Your task to perform on an android device: Open Youtube and go to "Your channel" Image 0: 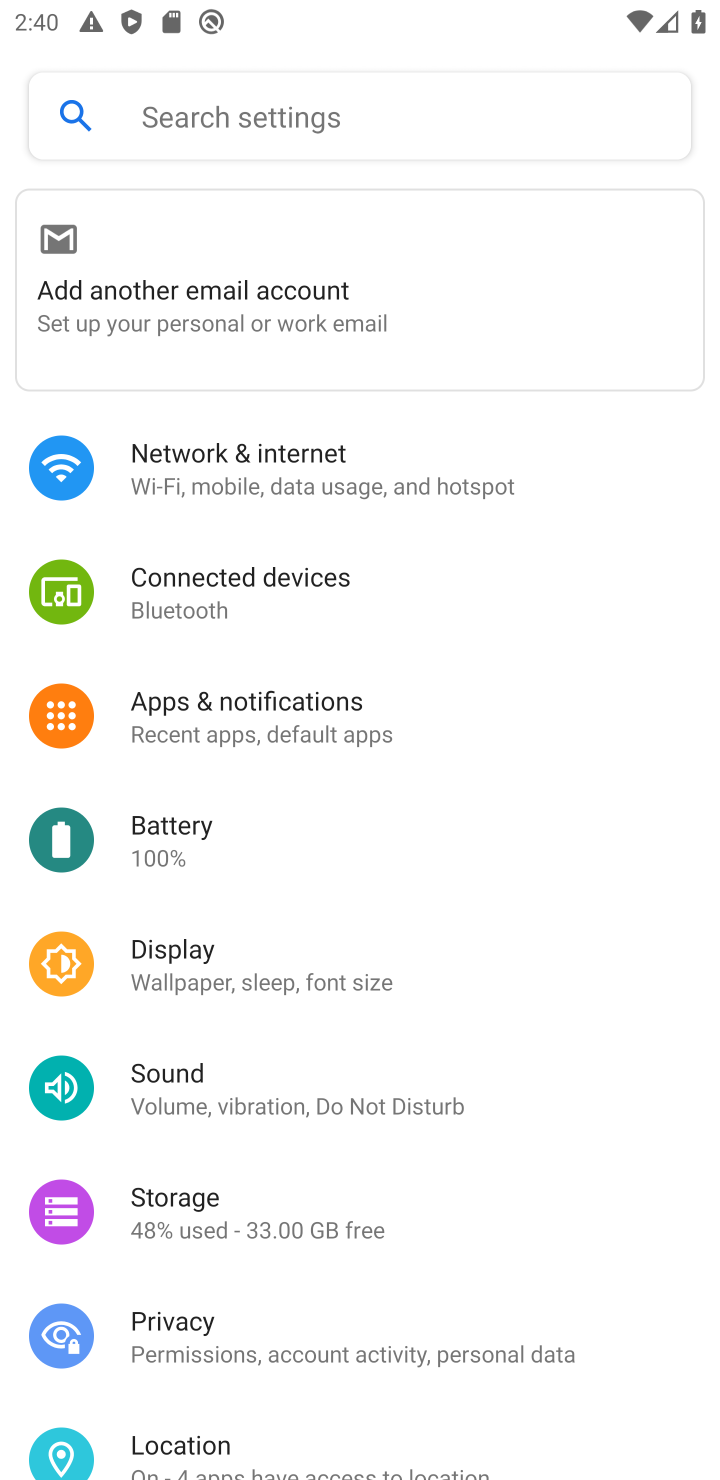
Step 0: press home button
Your task to perform on an android device: Open Youtube and go to "Your channel" Image 1: 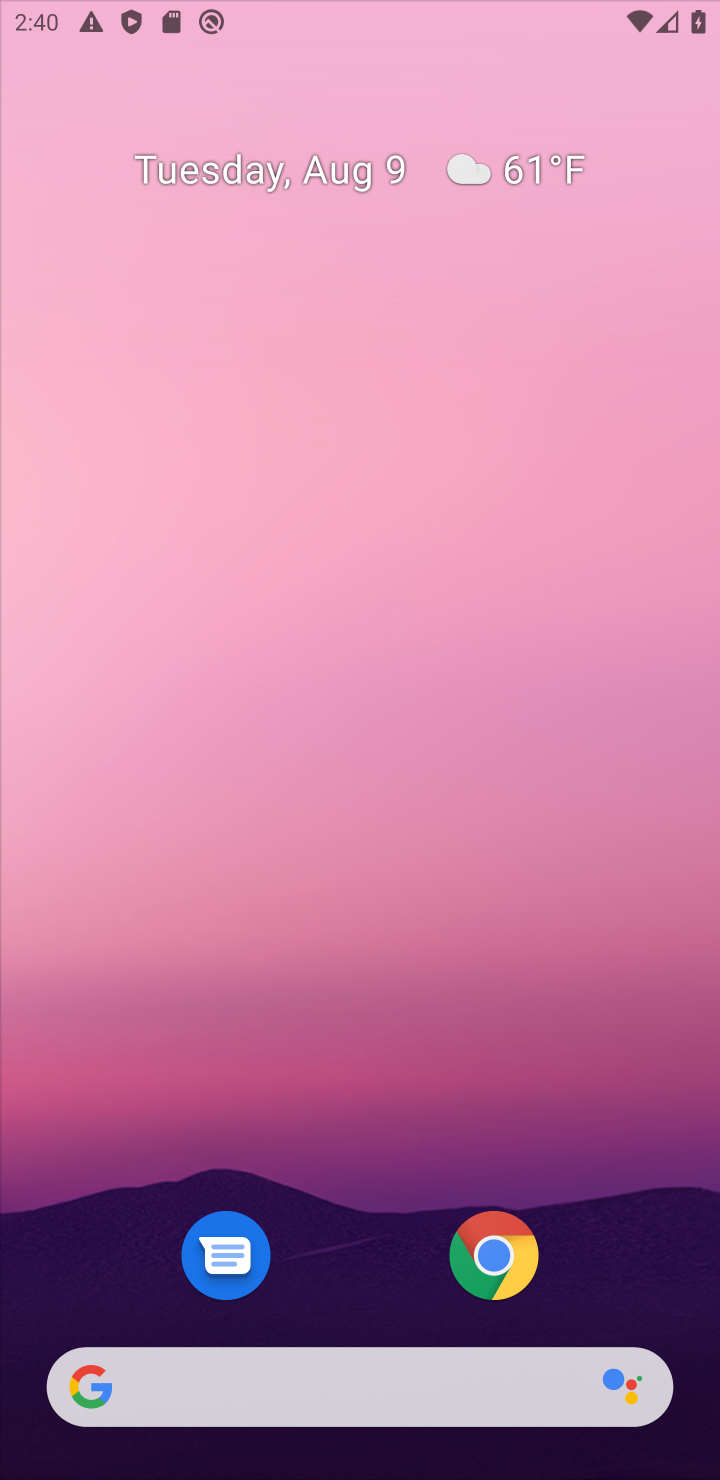
Step 1: drag from (205, 1279) to (230, 680)
Your task to perform on an android device: Open Youtube and go to "Your channel" Image 2: 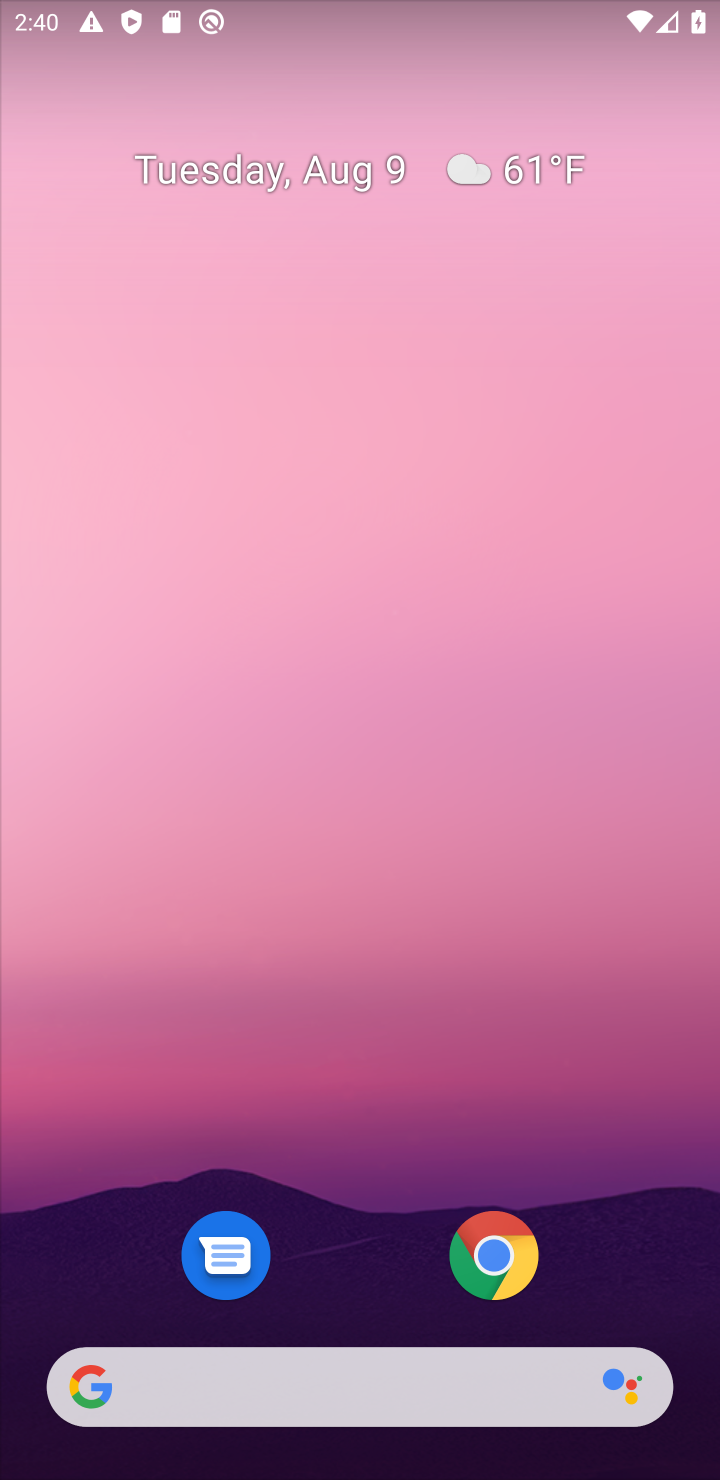
Step 2: drag from (423, 798) to (386, 493)
Your task to perform on an android device: Open Youtube and go to "Your channel" Image 3: 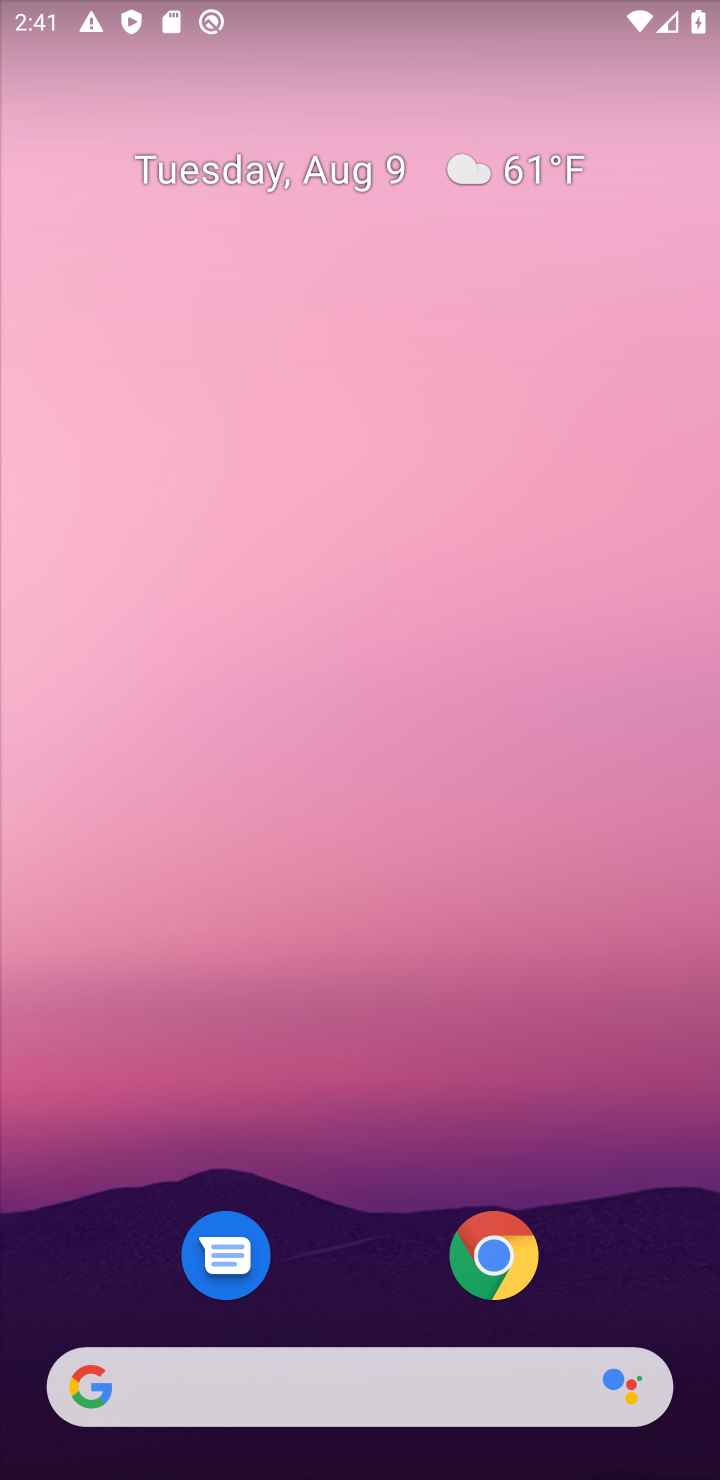
Step 3: click (285, 569)
Your task to perform on an android device: Open Youtube and go to "Your channel" Image 4: 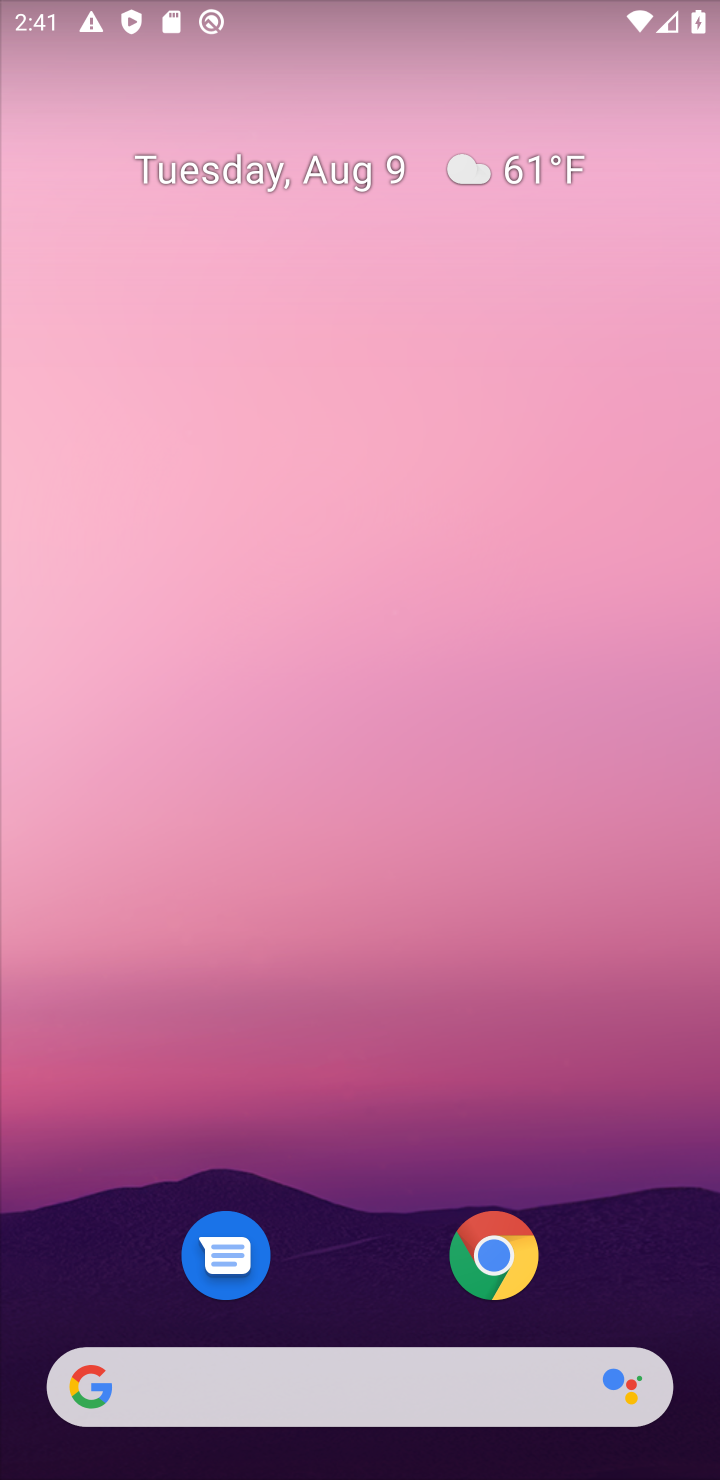
Step 4: drag from (296, 1408) to (284, 402)
Your task to perform on an android device: Open Youtube and go to "Your channel" Image 5: 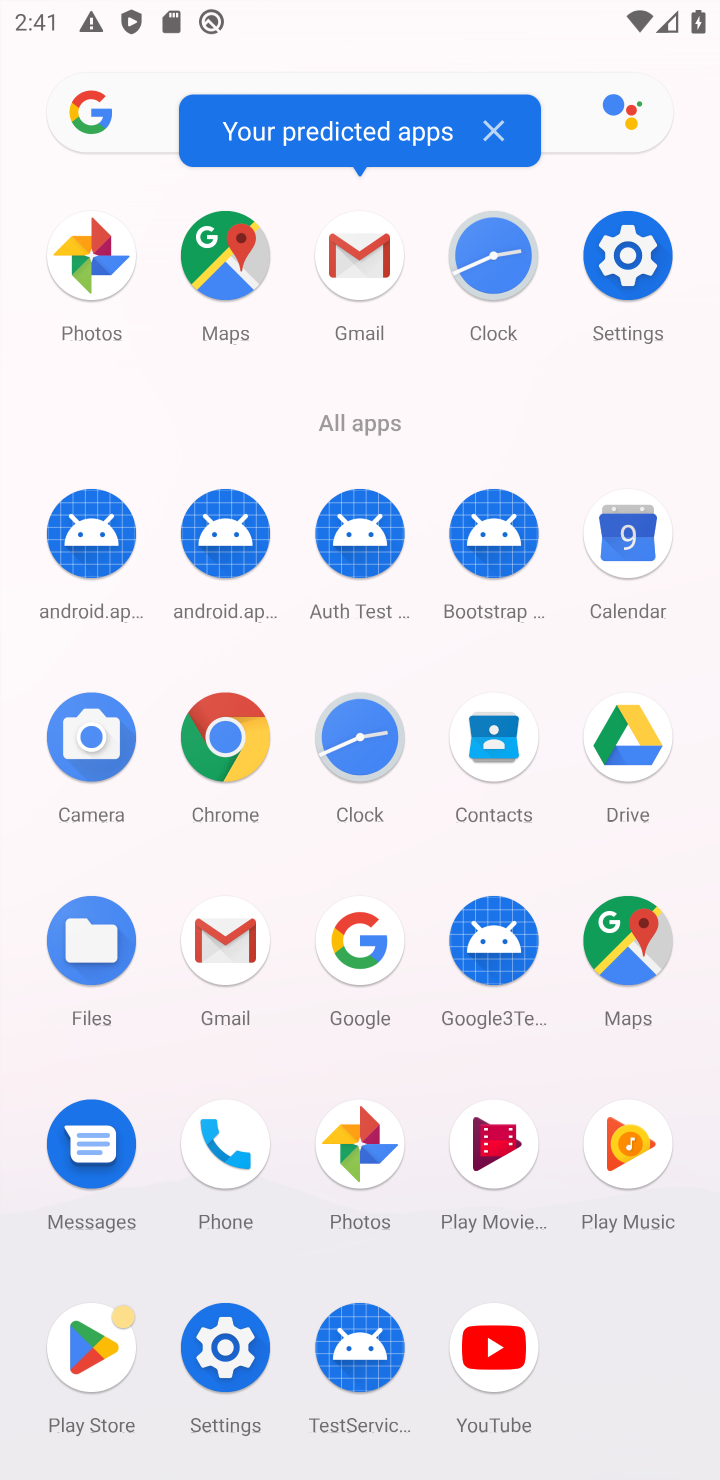
Step 5: click (471, 1346)
Your task to perform on an android device: Open Youtube and go to "Your channel" Image 6: 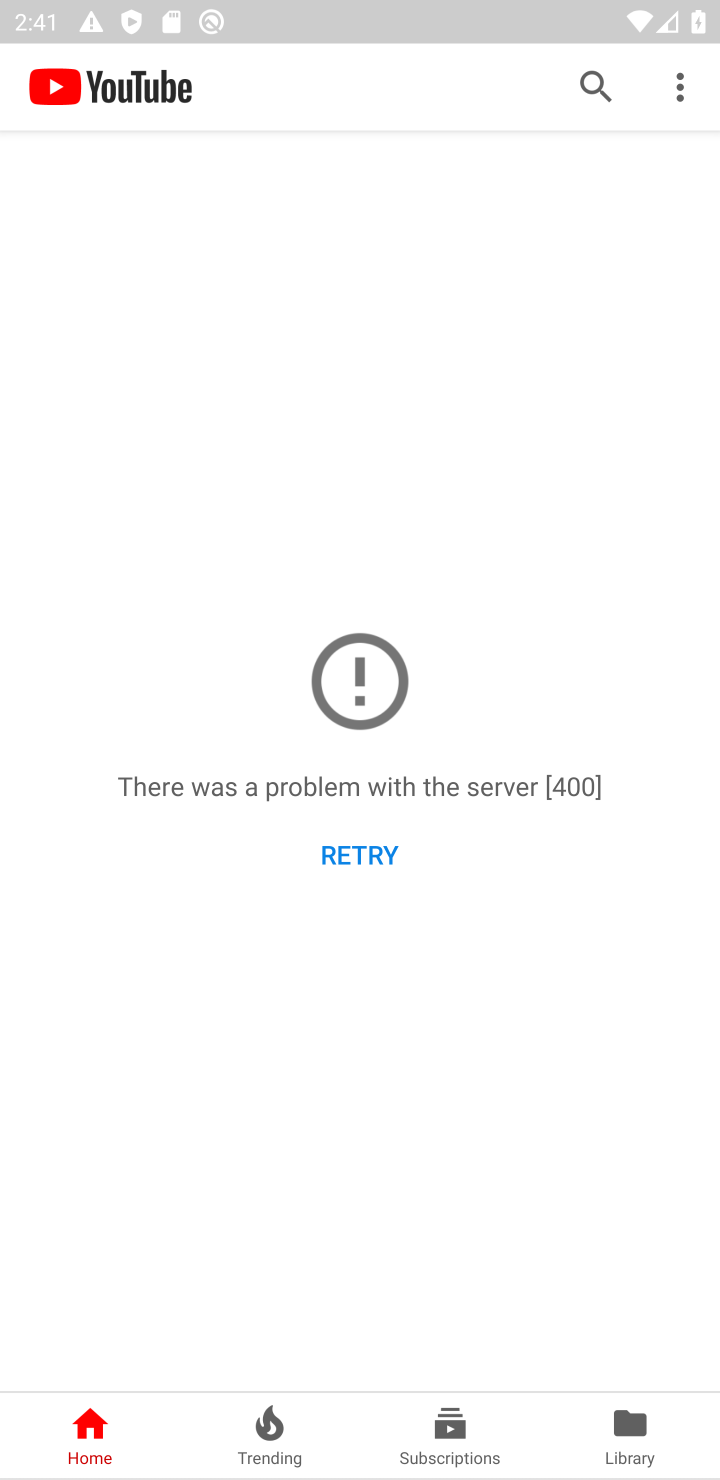
Step 6: click (570, 74)
Your task to perform on an android device: Open Youtube and go to "Your channel" Image 7: 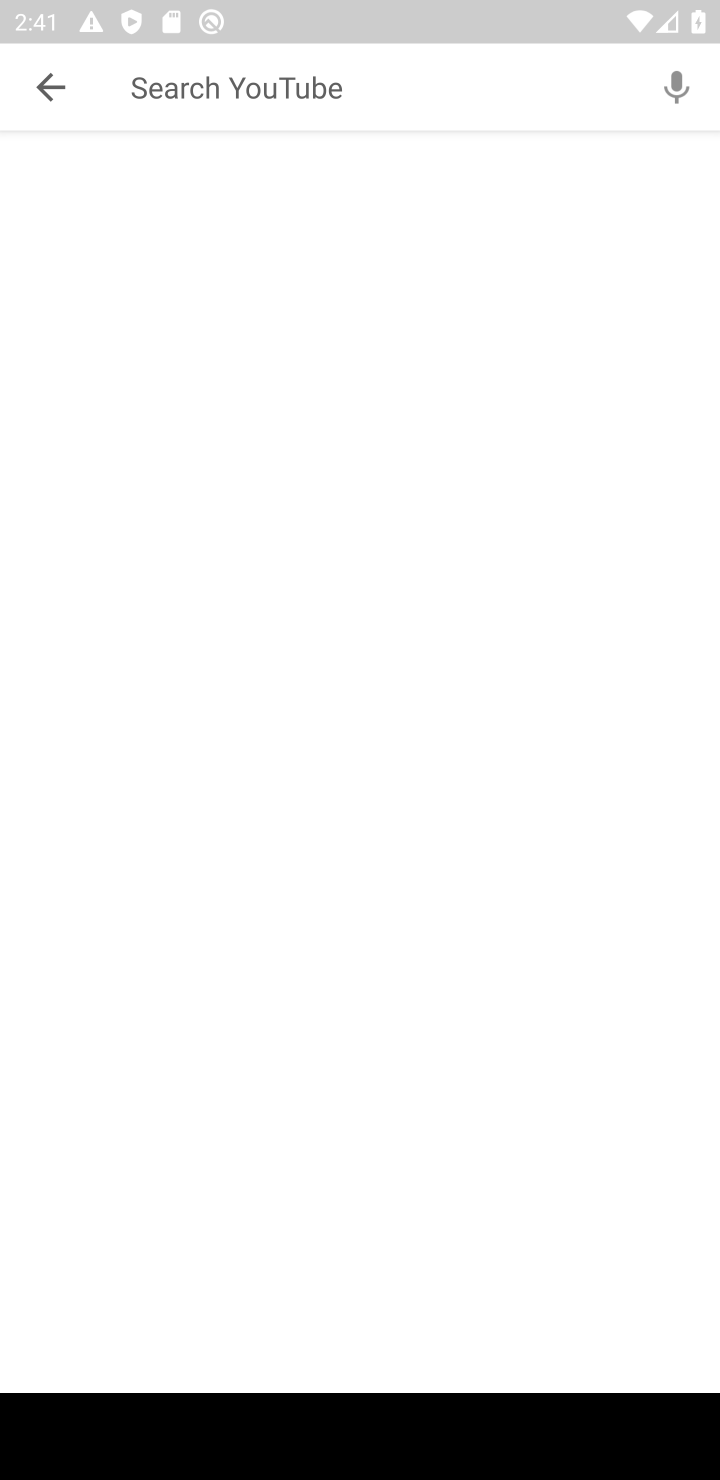
Step 7: type "india "
Your task to perform on an android device: Open Youtube and go to "Your channel" Image 8: 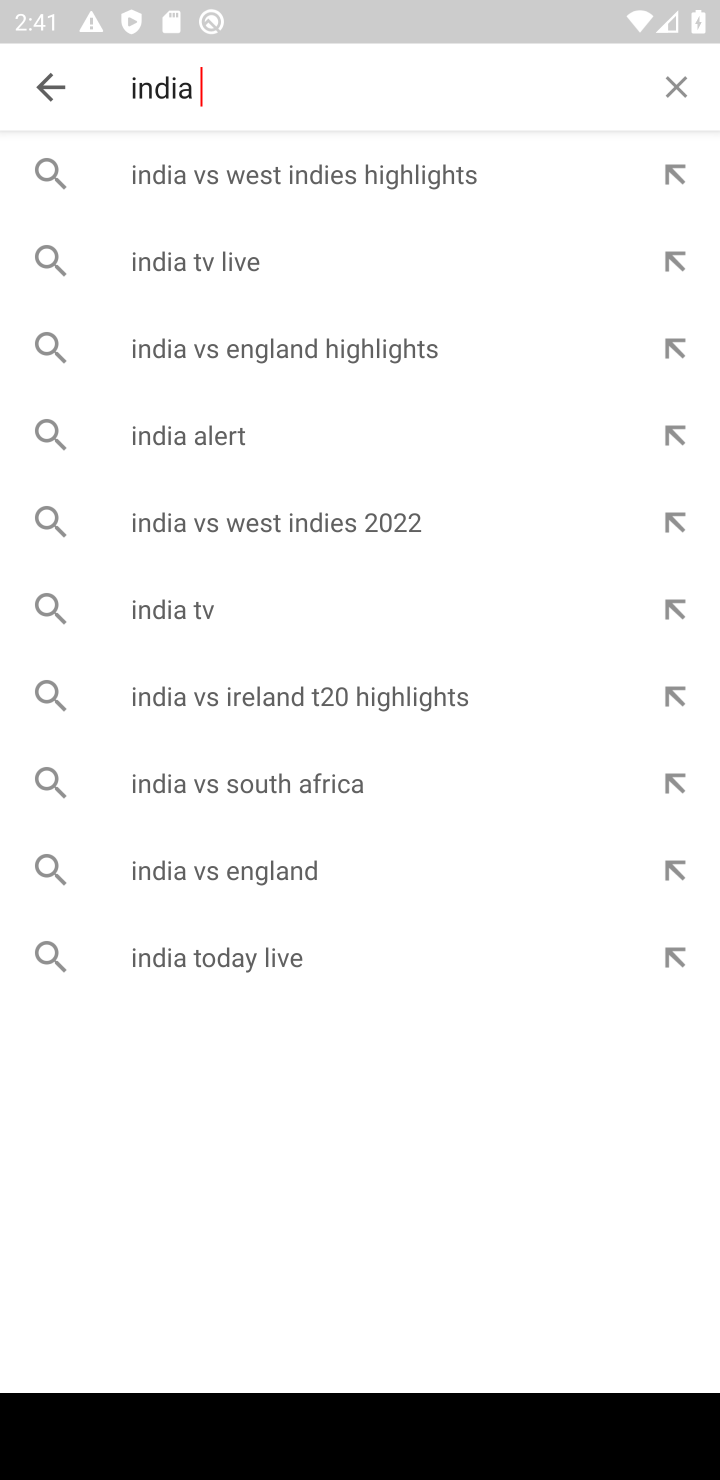
Step 8: click (321, 198)
Your task to perform on an android device: Open Youtube and go to "Your channel" Image 9: 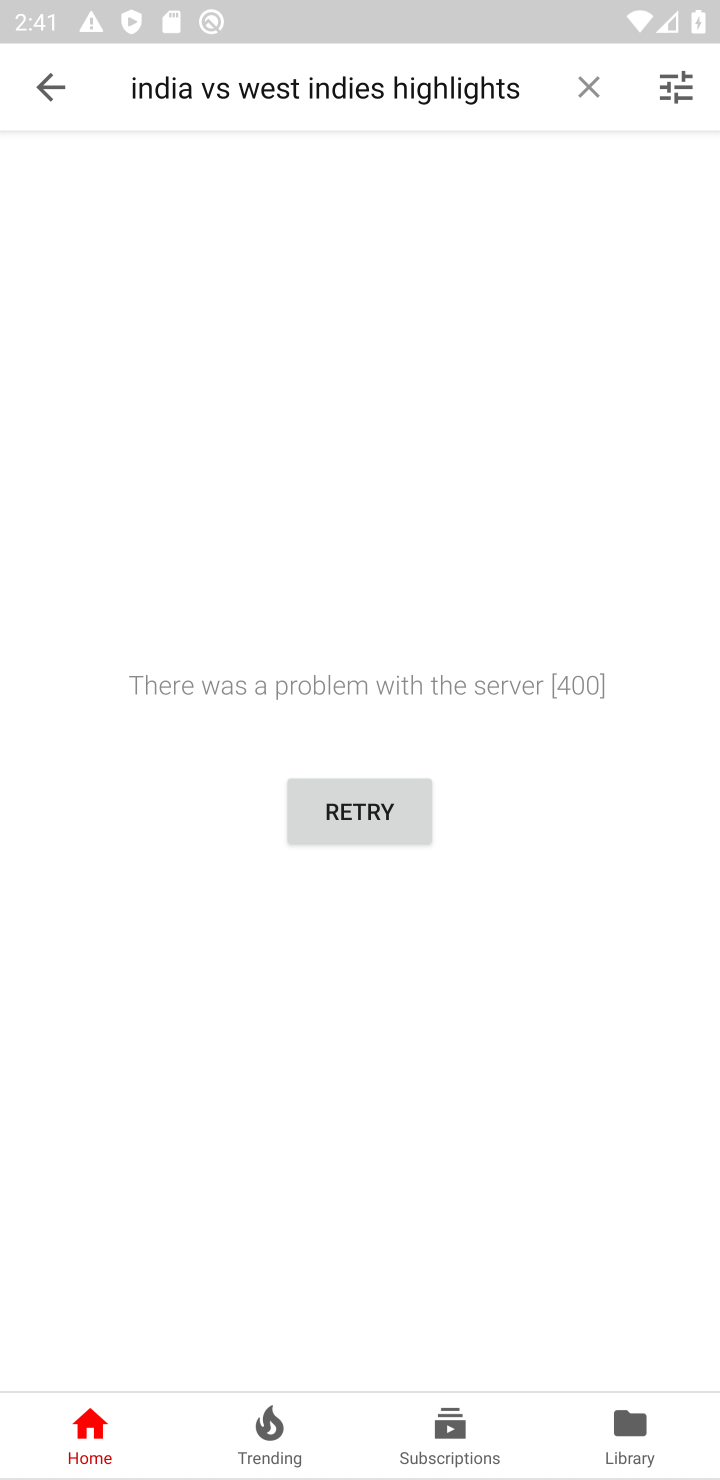
Step 9: task complete